Your task to perform on an android device: toggle location history Image 0: 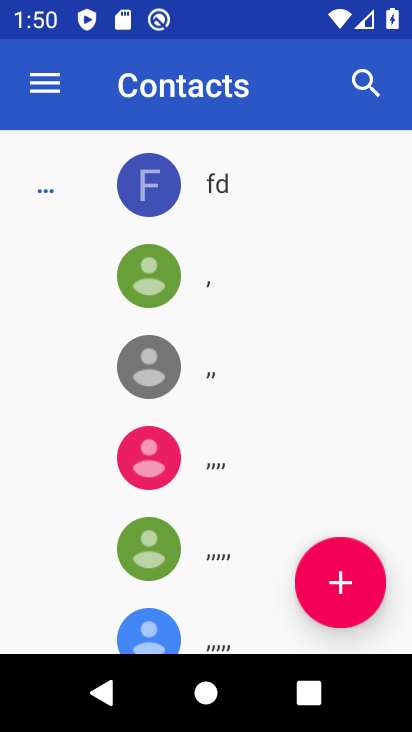
Step 0: press home button
Your task to perform on an android device: toggle location history Image 1: 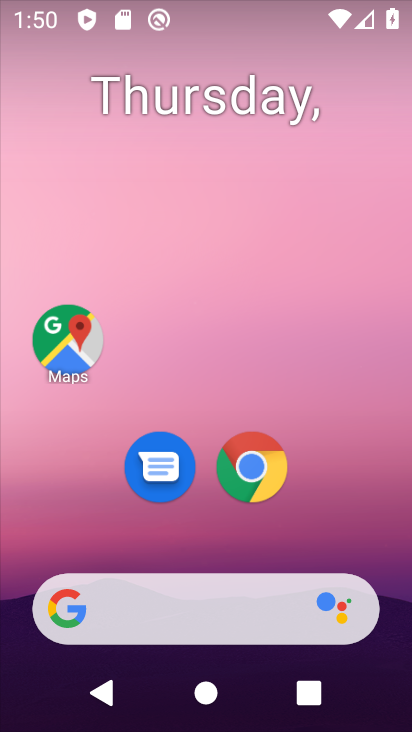
Step 1: drag from (341, 520) to (319, 92)
Your task to perform on an android device: toggle location history Image 2: 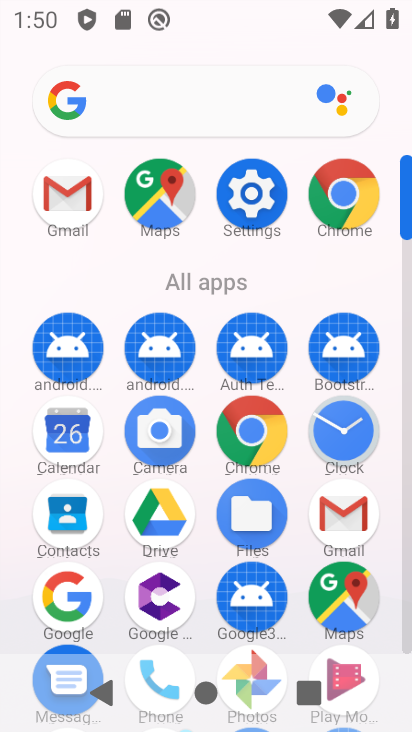
Step 2: click (251, 204)
Your task to perform on an android device: toggle location history Image 3: 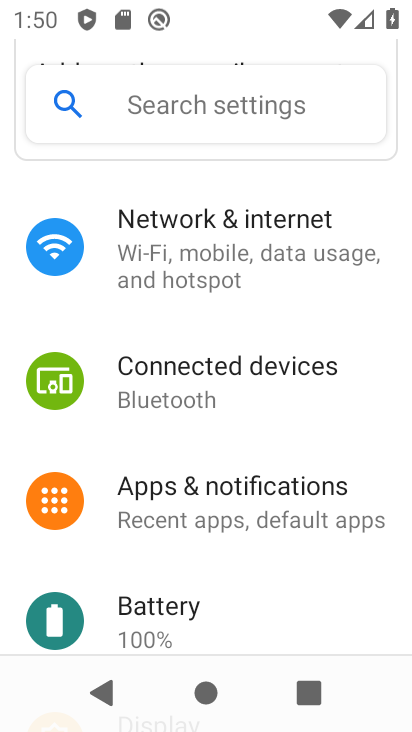
Step 3: drag from (257, 463) to (245, 207)
Your task to perform on an android device: toggle location history Image 4: 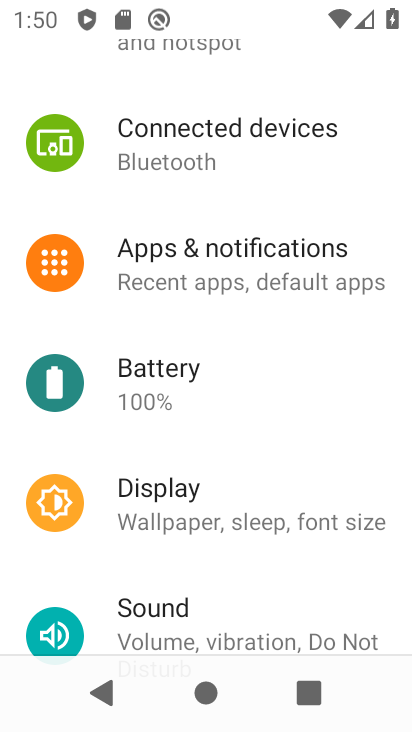
Step 4: drag from (228, 493) to (273, 171)
Your task to perform on an android device: toggle location history Image 5: 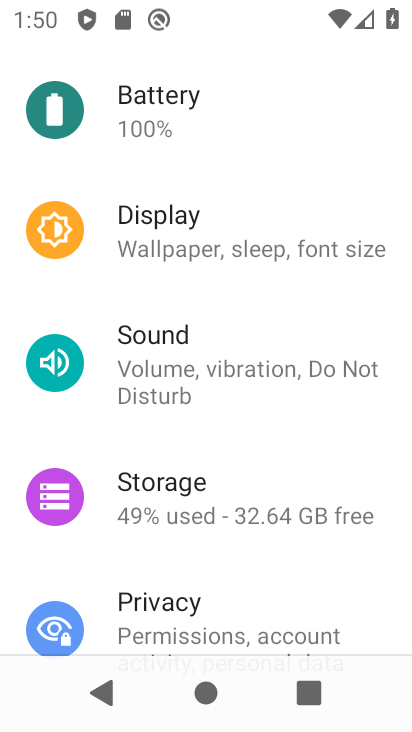
Step 5: drag from (233, 522) to (235, 155)
Your task to perform on an android device: toggle location history Image 6: 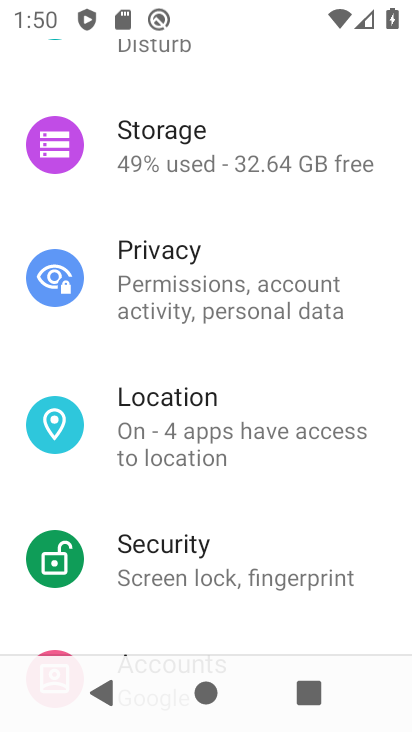
Step 6: drag from (215, 474) to (229, 99)
Your task to perform on an android device: toggle location history Image 7: 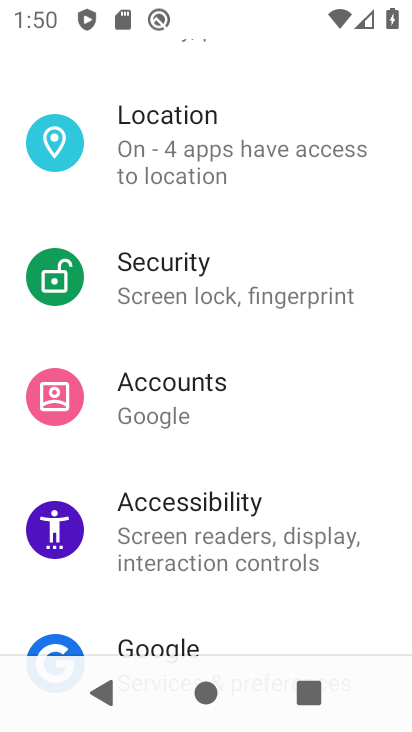
Step 7: click (151, 164)
Your task to perform on an android device: toggle location history Image 8: 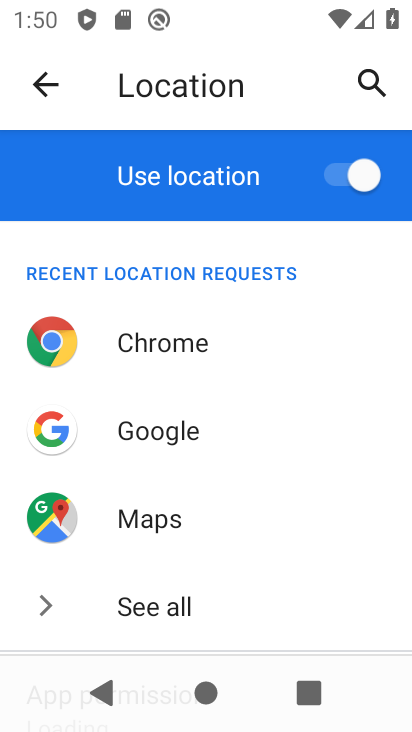
Step 8: drag from (231, 528) to (207, 208)
Your task to perform on an android device: toggle location history Image 9: 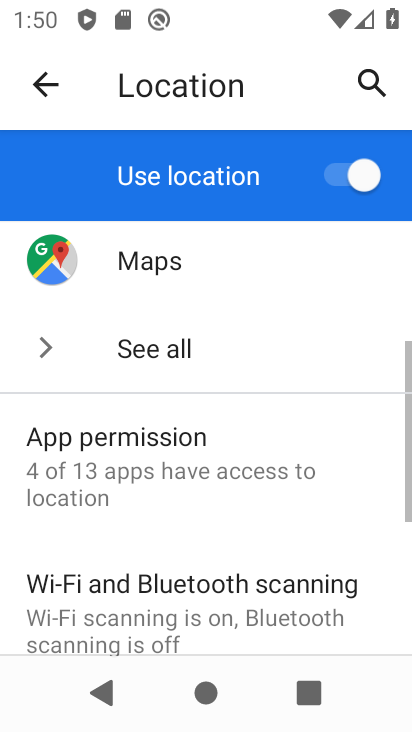
Step 9: drag from (228, 529) to (222, 216)
Your task to perform on an android device: toggle location history Image 10: 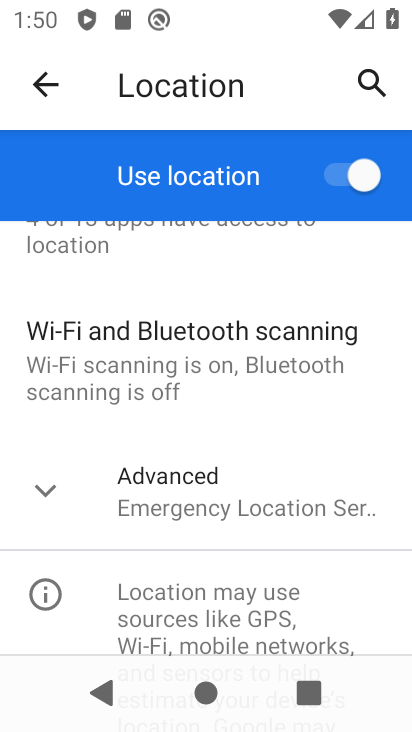
Step 10: click (227, 478)
Your task to perform on an android device: toggle location history Image 11: 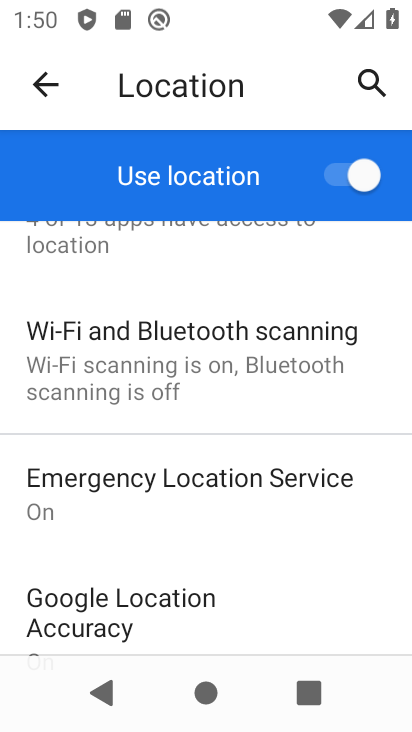
Step 11: drag from (247, 598) to (208, 281)
Your task to perform on an android device: toggle location history Image 12: 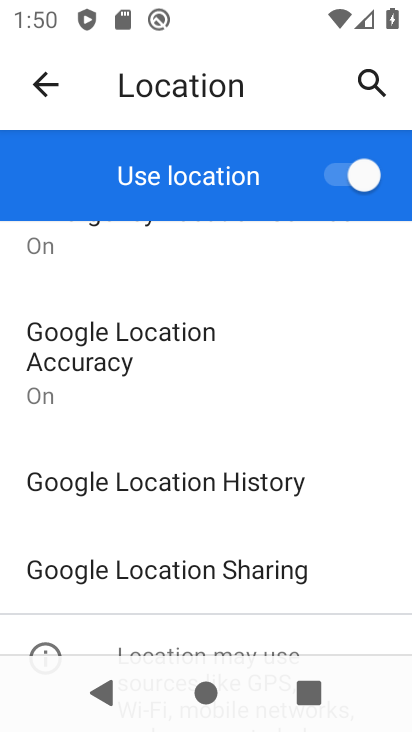
Step 12: click (231, 510)
Your task to perform on an android device: toggle location history Image 13: 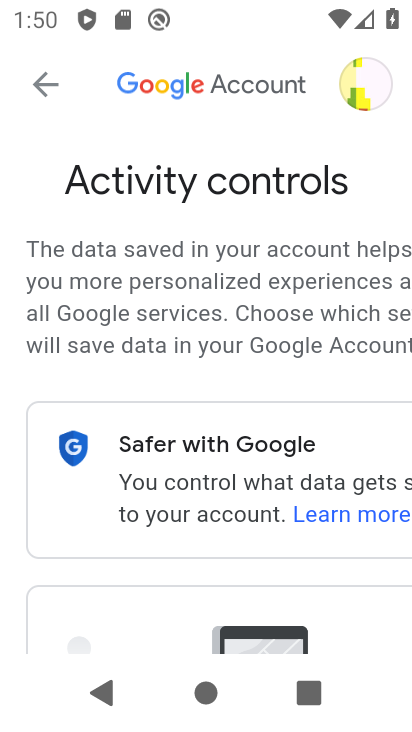
Step 13: drag from (207, 585) to (208, 215)
Your task to perform on an android device: toggle location history Image 14: 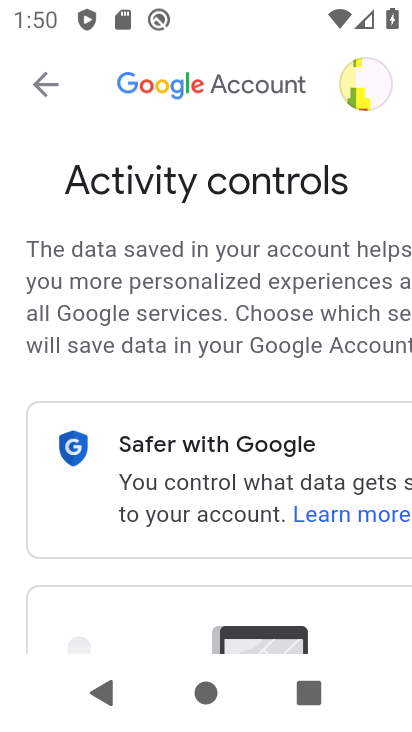
Step 14: drag from (130, 583) to (152, 189)
Your task to perform on an android device: toggle location history Image 15: 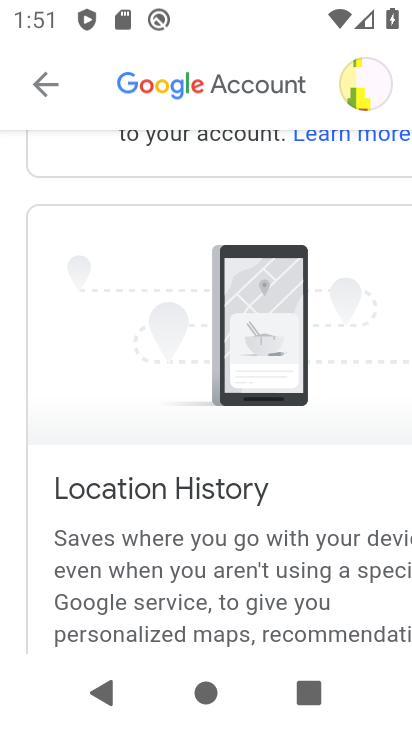
Step 15: drag from (127, 623) to (182, 184)
Your task to perform on an android device: toggle location history Image 16: 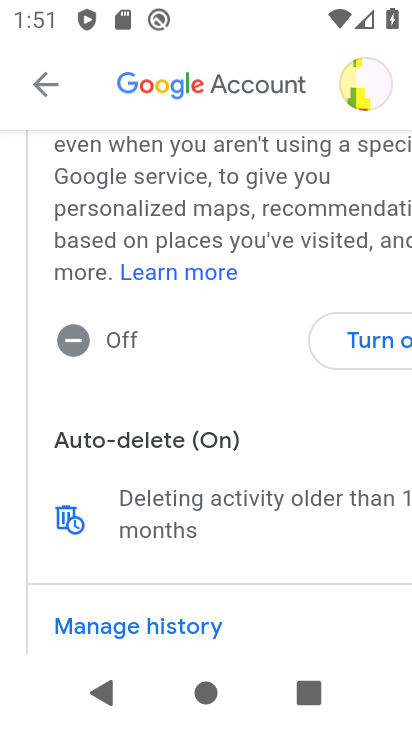
Step 16: click (382, 349)
Your task to perform on an android device: toggle location history Image 17: 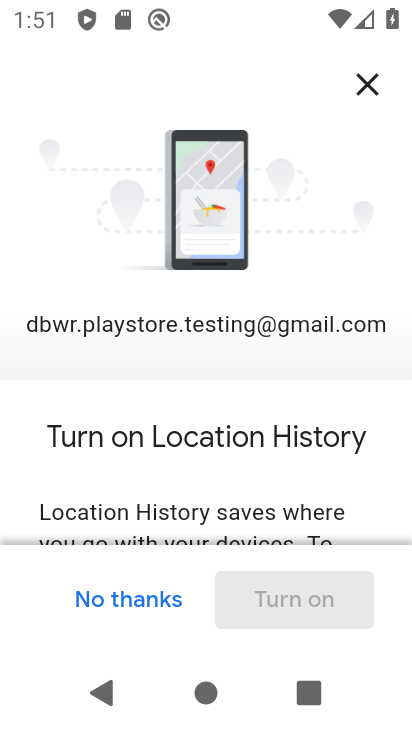
Step 17: drag from (205, 507) to (207, 157)
Your task to perform on an android device: toggle location history Image 18: 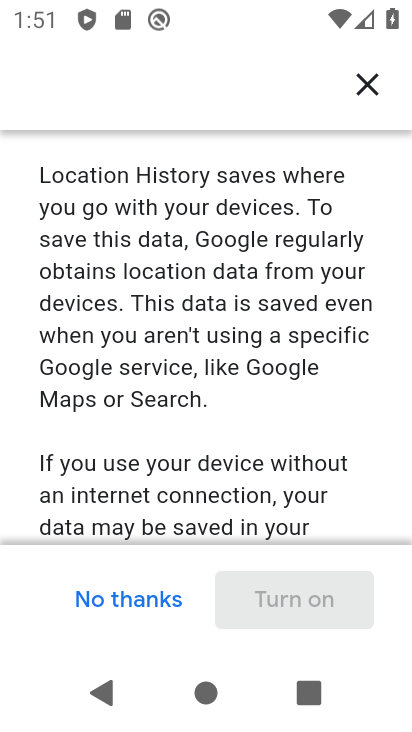
Step 18: drag from (186, 527) to (209, 130)
Your task to perform on an android device: toggle location history Image 19: 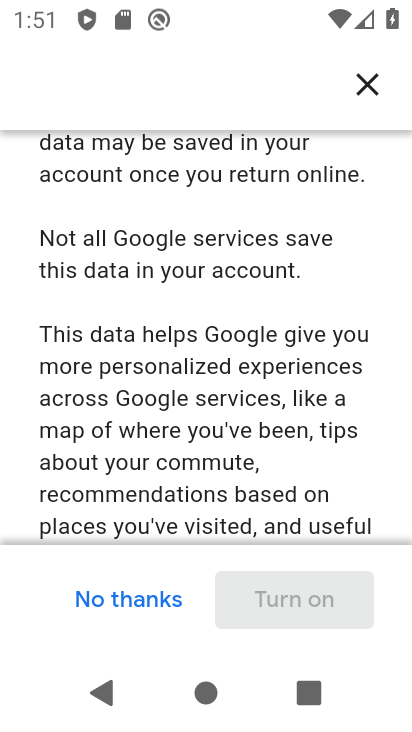
Step 19: drag from (246, 501) to (246, 144)
Your task to perform on an android device: toggle location history Image 20: 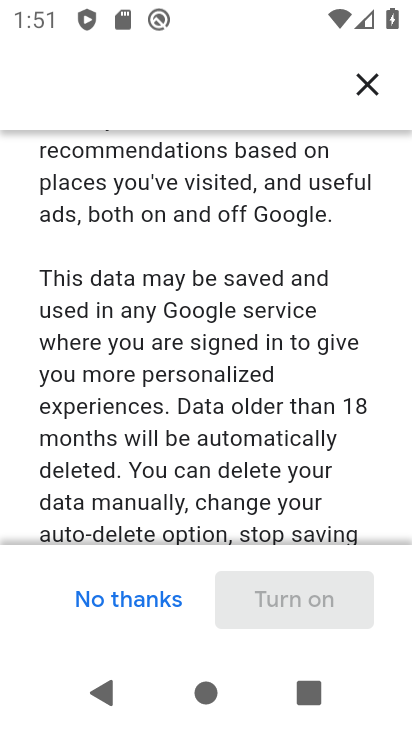
Step 20: drag from (257, 483) to (254, 114)
Your task to perform on an android device: toggle location history Image 21: 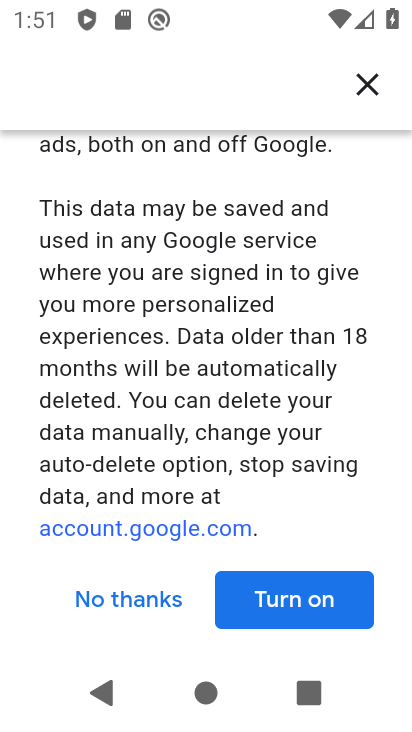
Step 21: click (301, 598)
Your task to perform on an android device: toggle location history Image 22: 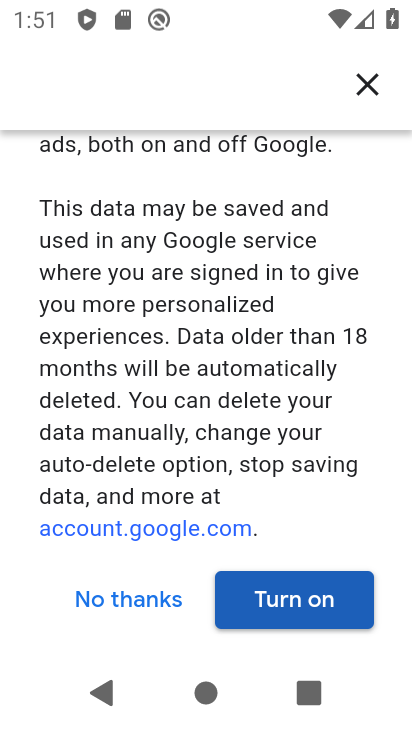
Step 22: click (325, 591)
Your task to perform on an android device: toggle location history Image 23: 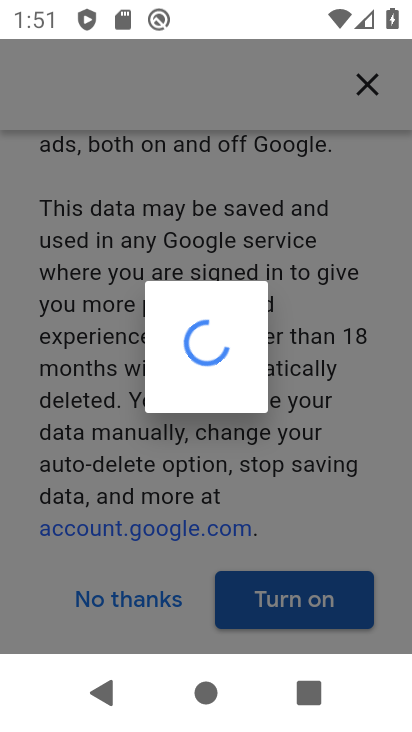
Step 23: click (329, 593)
Your task to perform on an android device: toggle location history Image 24: 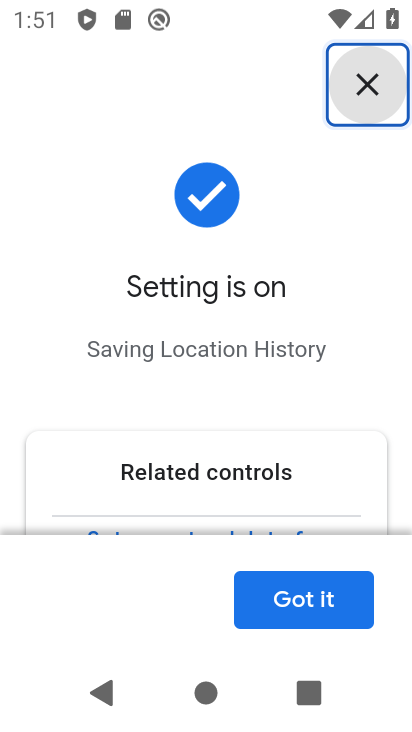
Step 24: click (344, 605)
Your task to perform on an android device: toggle location history Image 25: 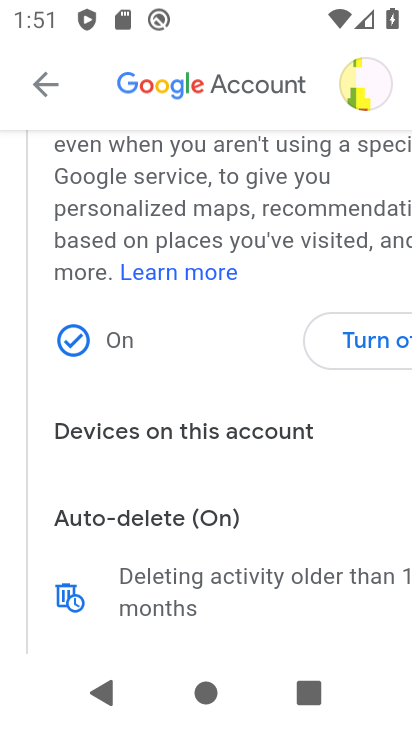
Step 25: task complete